Your task to perform on an android device: turn on notifications settings in the gmail app Image 0: 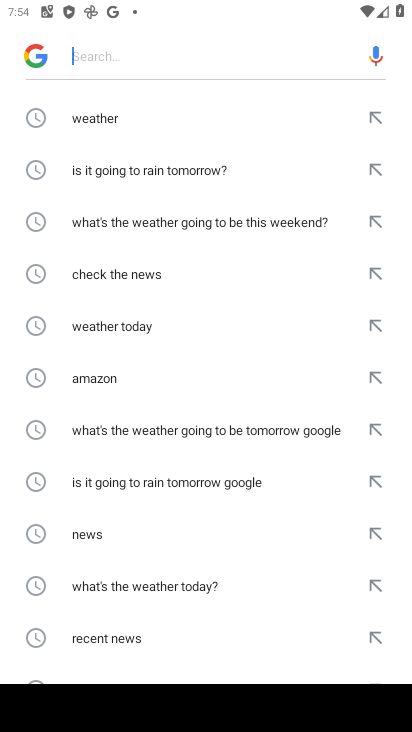
Step 0: press home button
Your task to perform on an android device: turn on notifications settings in the gmail app Image 1: 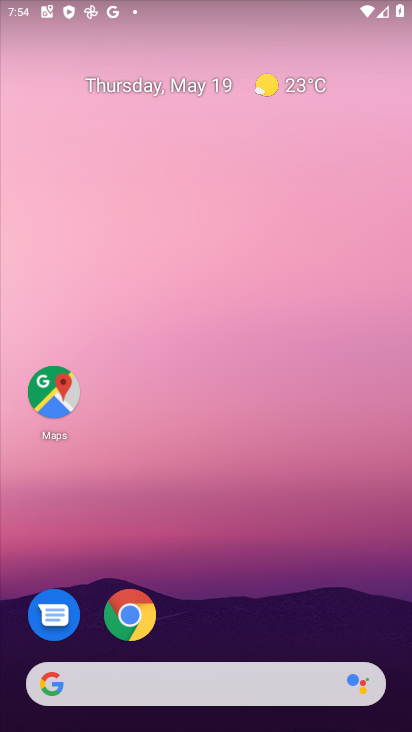
Step 1: drag from (329, 621) to (270, 2)
Your task to perform on an android device: turn on notifications settings in the gmail app Image 2: 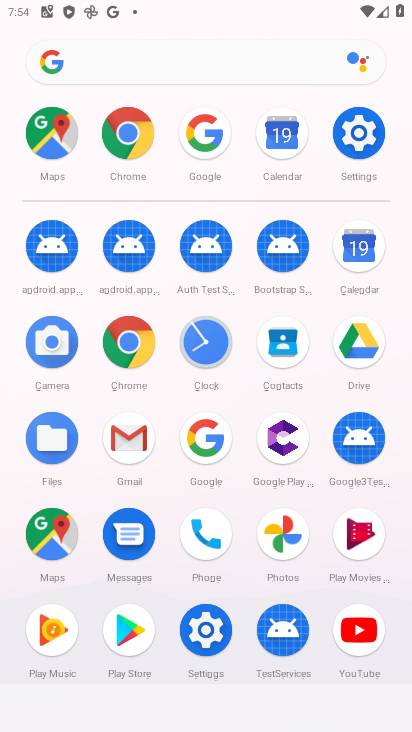
Step 2: click (123, 433)
Your task to perform on an android device: turn on notifications settings in the gmail app Image 3: 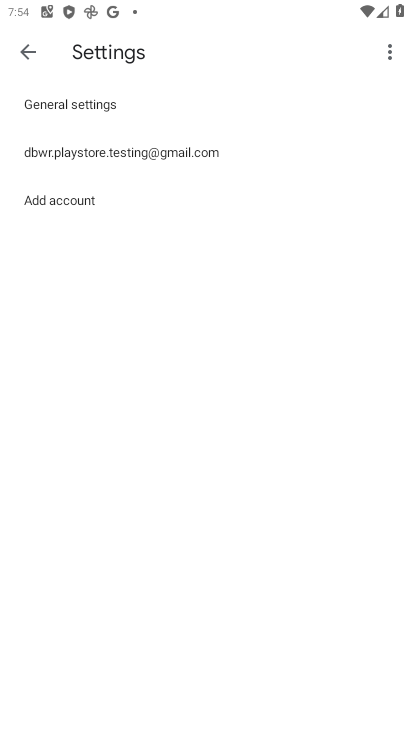
Step 3: click (108, 163)
Your task to perform on an android device: turn on notifications settings in the gmail app Image 4: 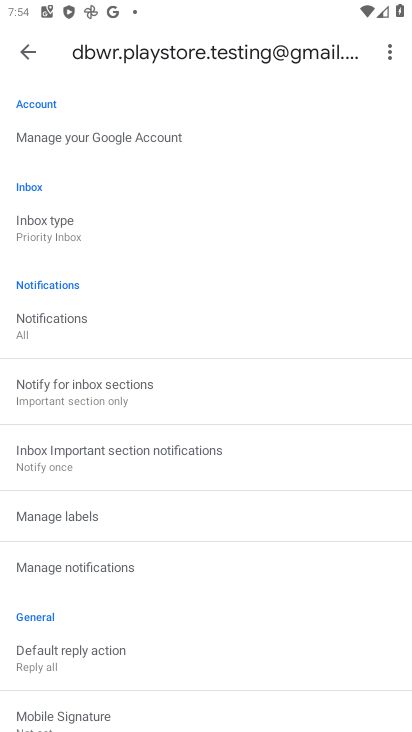
Step 4: click (78, 344)
Your task to perform on an android device: turn on notifications settings in the gmail app Image 5: 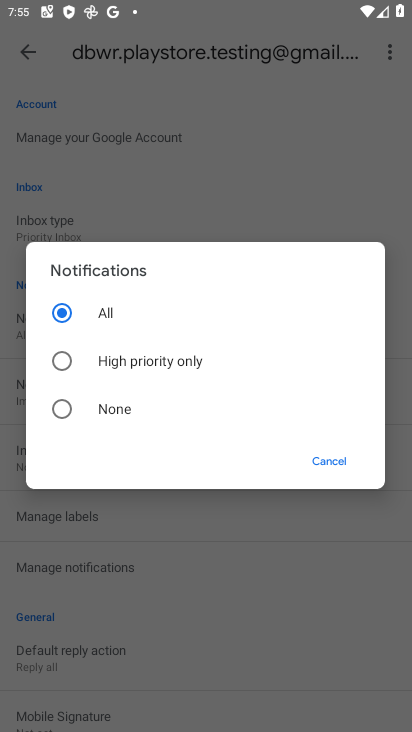
Step 5: task complete